Your task to perform on an android device: Open battery settings Image 0: 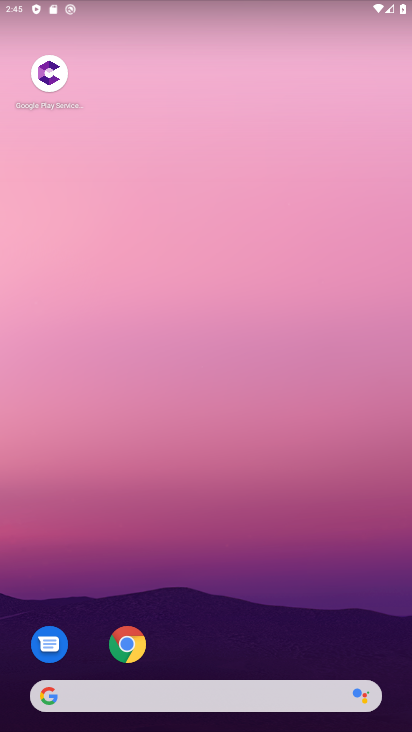
Step 0: drag from (262, 669) to (182, 13)
Your task to perform on an android device: Open battery settings Image 1: 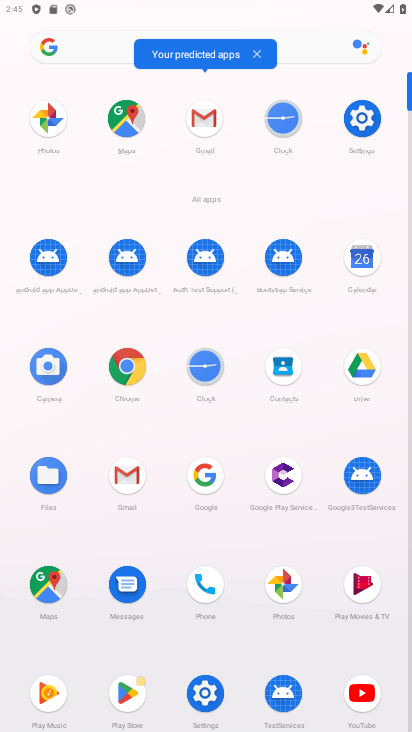
Step 1: click (359, 119)
Your task to perform on an android device: Open battery settings Image 2: 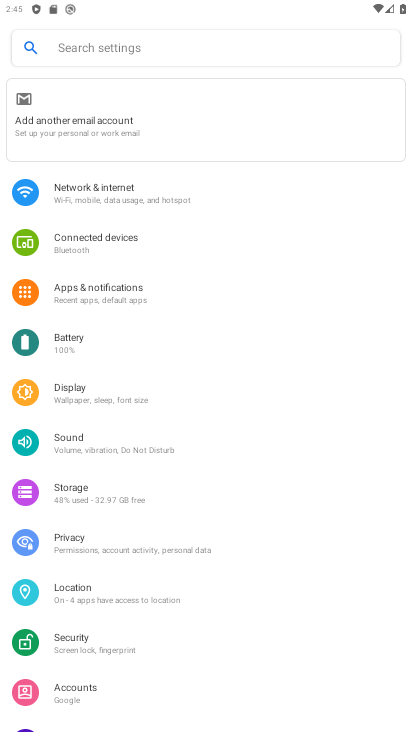
Step 2: click (72, 342)
Your task to perform on an android device: Open battery settings Image 3: 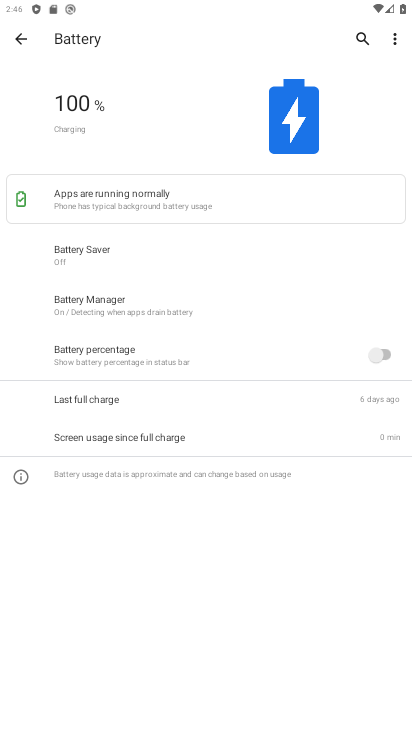
Step 3: task complete